Your task to perform on an android device: toggle priority inbox in the gmail app Image 0: 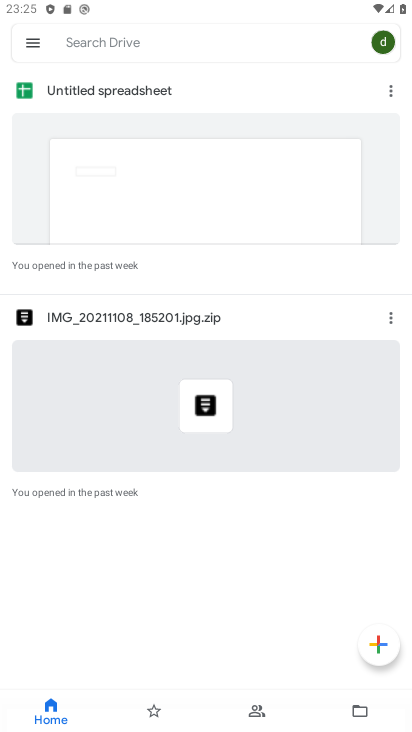
Step 0: press home button
Your task to perform on an android device: toggle priority inbox in the gmail app Image 1: 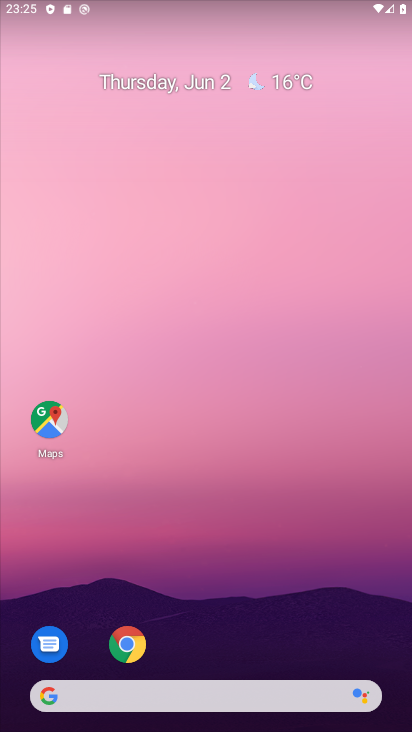
Step 1: drag from (211, 641) to (314, 265)
Your task to perform on an android device: toggle priority inbox in the gmail app Image 2: 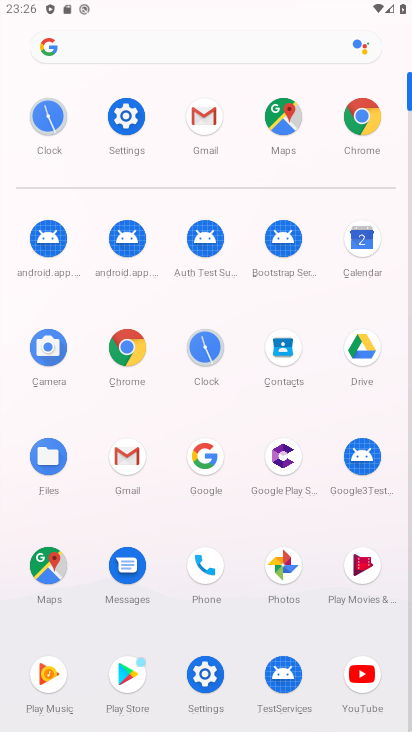
Step 2: click (122, 454)
Your task to perform on an android device: toggle priority inbox in the gmail app Image 3: 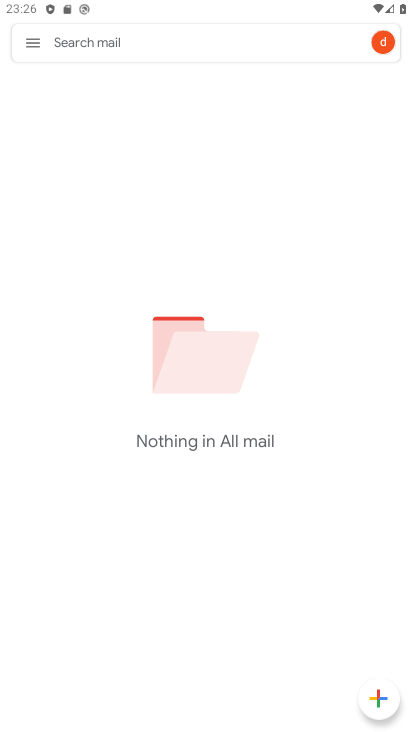
Step 3: click (33, 34)
Your task to perform on an android device: toggle priority inbox in the gmail app Image 4: 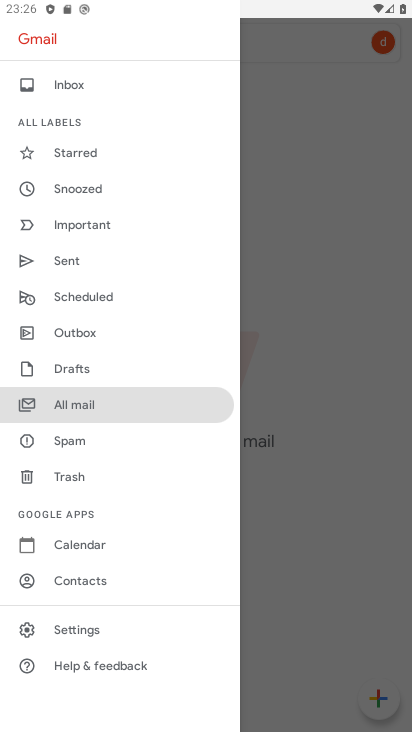
Step 4: click (65, 621)
Your task to perform on an android device: toggle priority inbox in the gmail app Image 5: 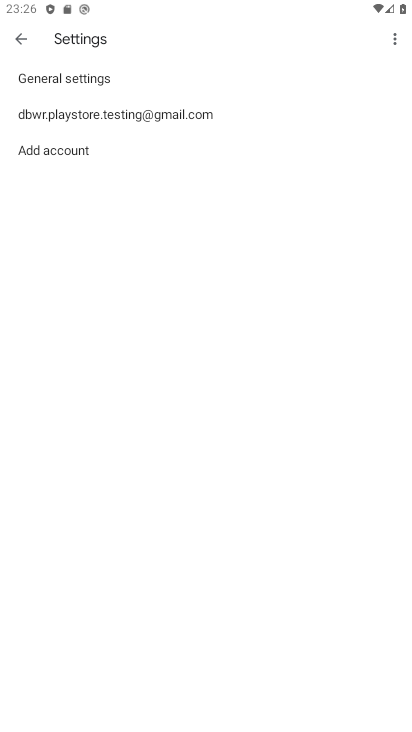
Step 5: click (117, 110)
Your task to perform on an android device: toggle priority inbox in the gmail app Image 6: 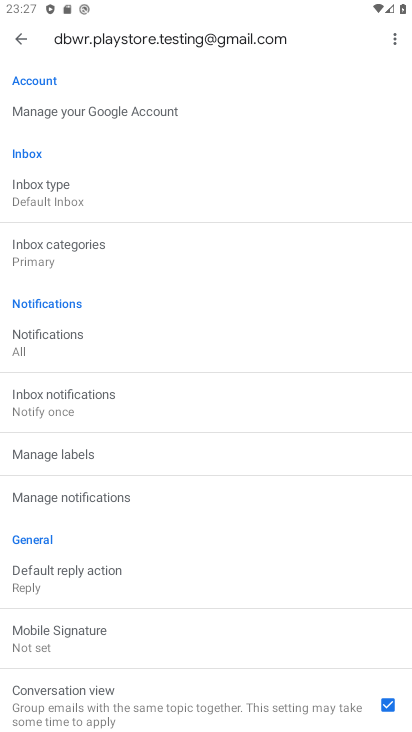
Step 6: click (41, 193)
Your task to perform on an android device: toggle priority inbox in the gmail app Image 7: 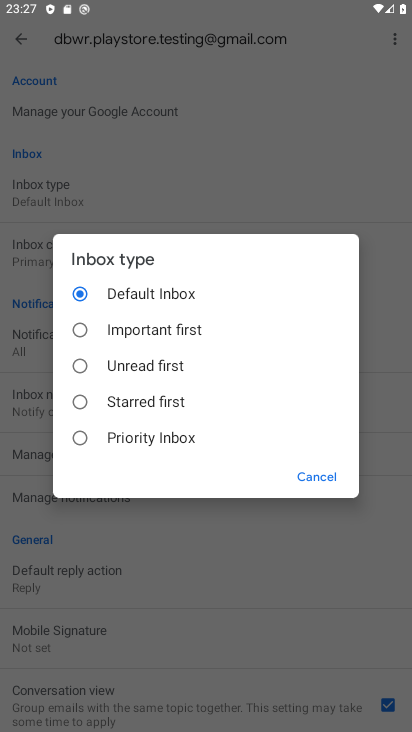
Step 7: click (132, 437)
Your task to perform on an android device: toggle priority inbox in the gmail app Image 8: 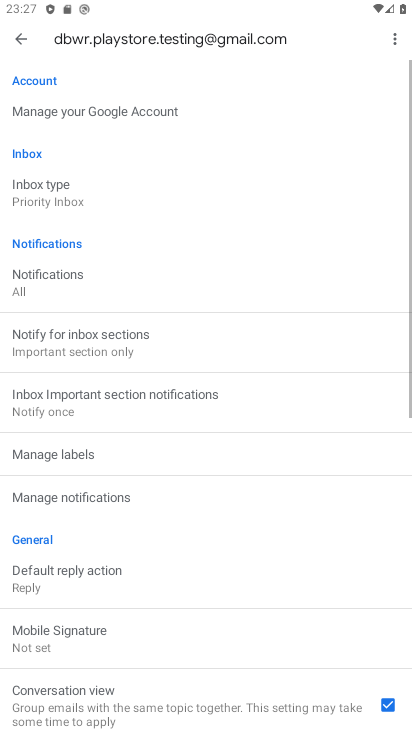
Step 8: task complete